Your task to perform on an android device: turn off notifications settings in the gmail app Image 0: 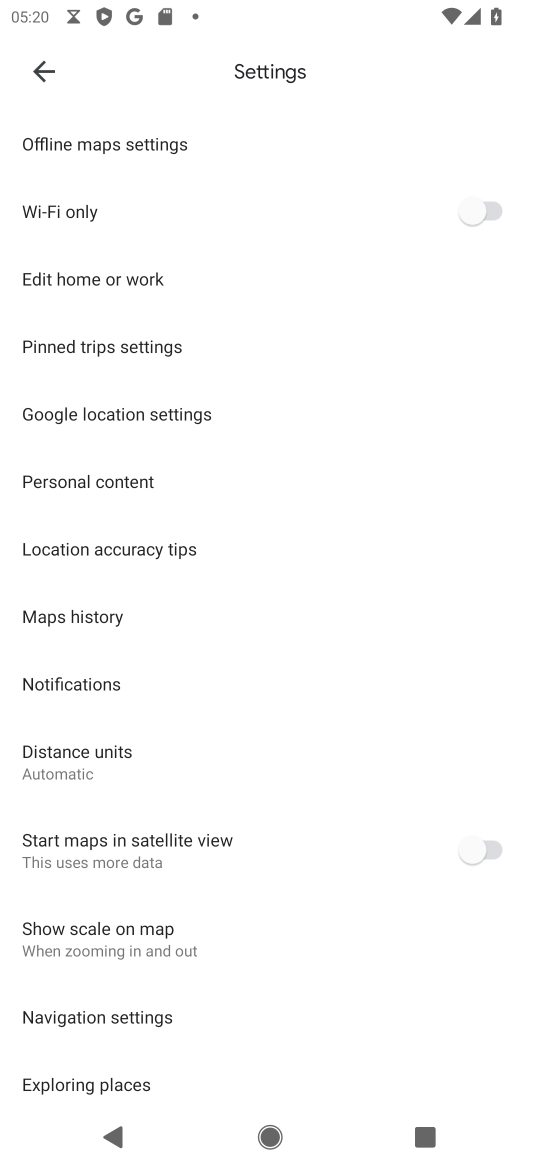
Step 0: press home button
Your task to perform on an android device: turn off notifications settings in the gmail app Image 1: 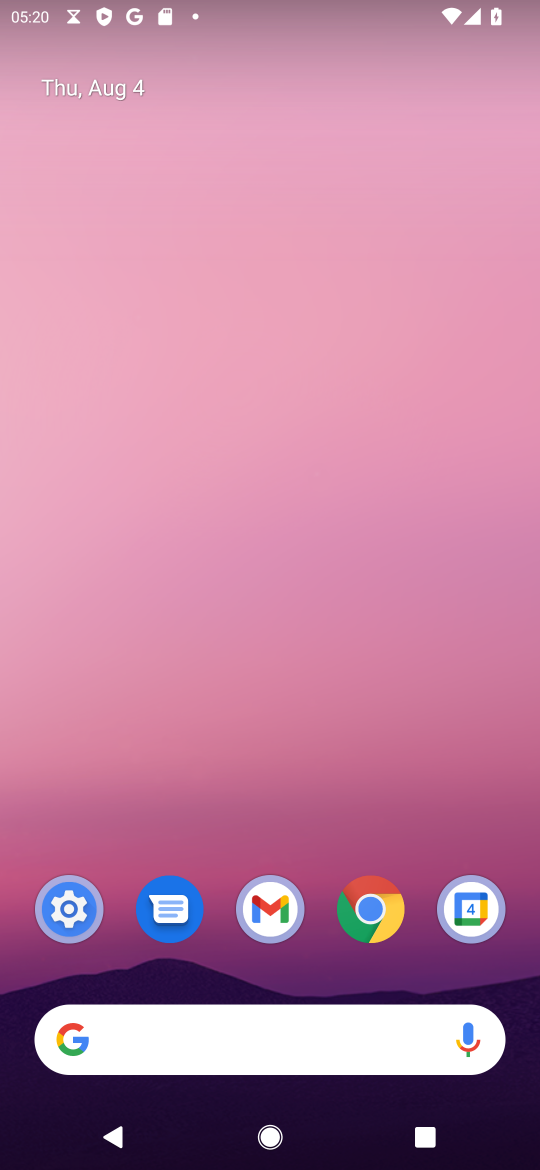
Step 1: click (272, 913)
Your task to perform on an android device: turn off notifications settings in the gmail app Image 2: 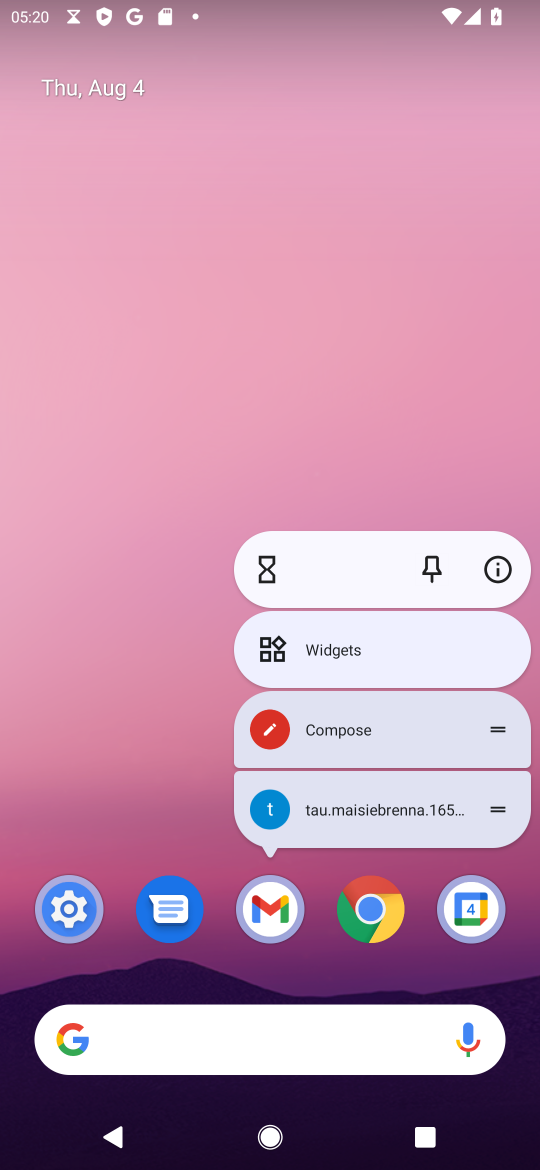
Step 2: click (264, 905)
Your task to perform on an android device: turn off notifications settings in the gmail app Image 3: 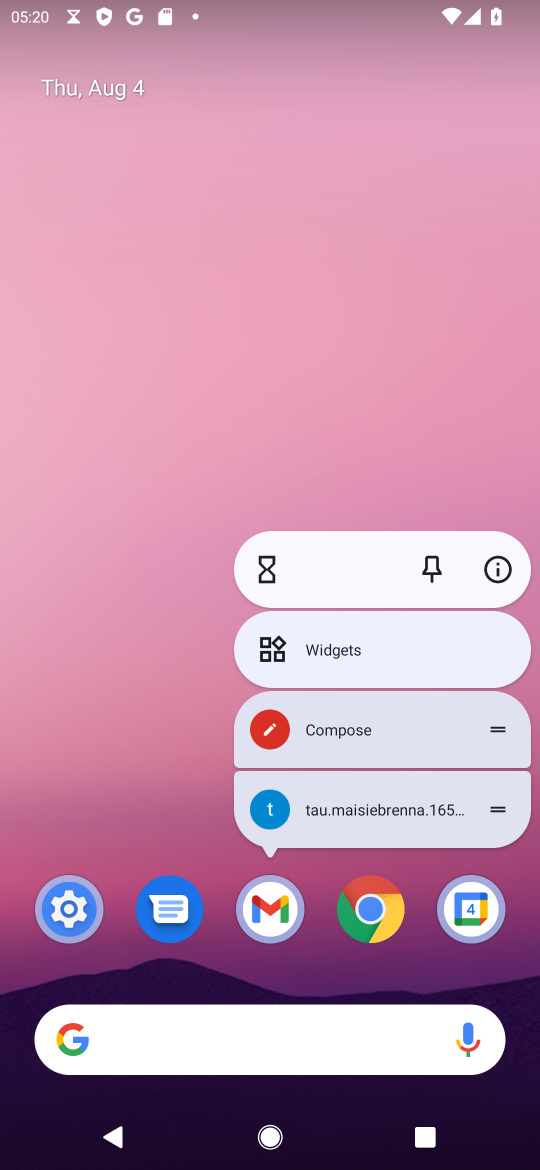
Step 3: click (272, 915)
Your task to perform on an android device: turn off notifications settings in the gmail app Image 4: 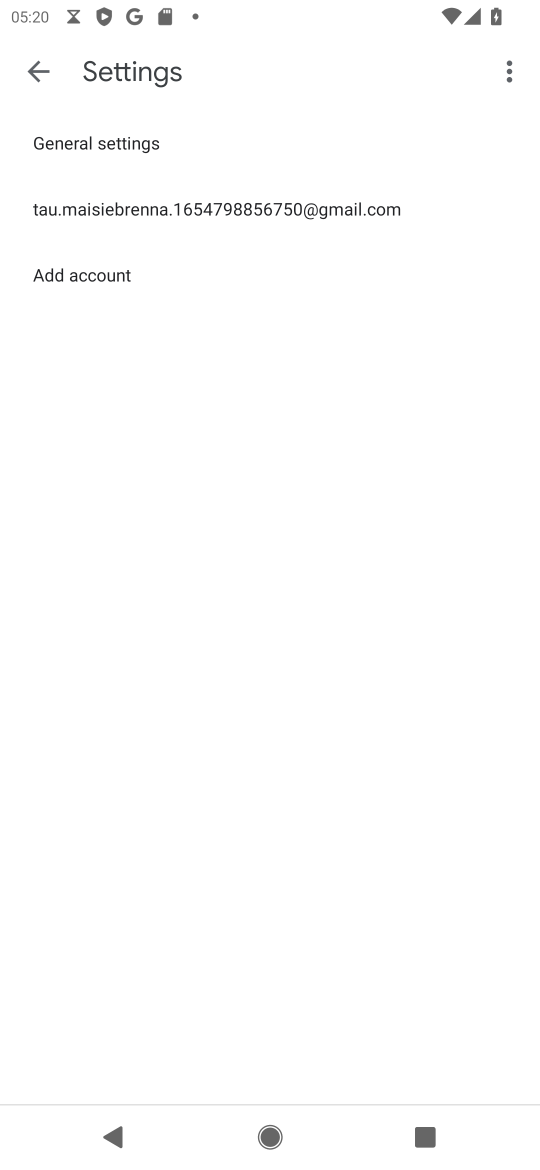
Step 4: click (292, 214)
Your task to perform on an android device: turn off notifications settings in the gmail app Image 5: 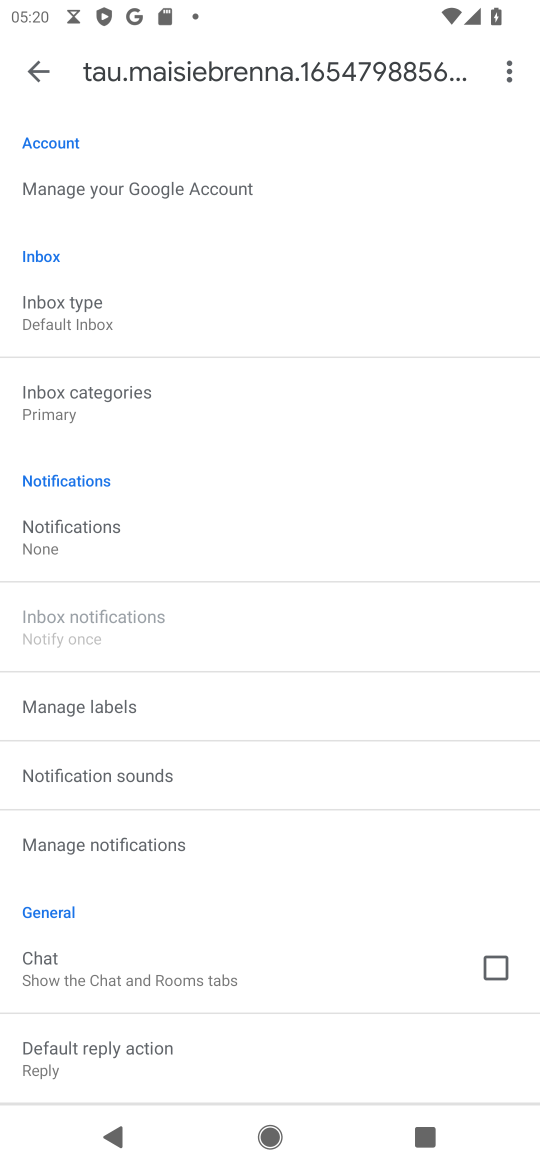
Step 5: click (84, 542)
Your task to perform on an android device: turn off notifications settings in the gmail app Image 6: 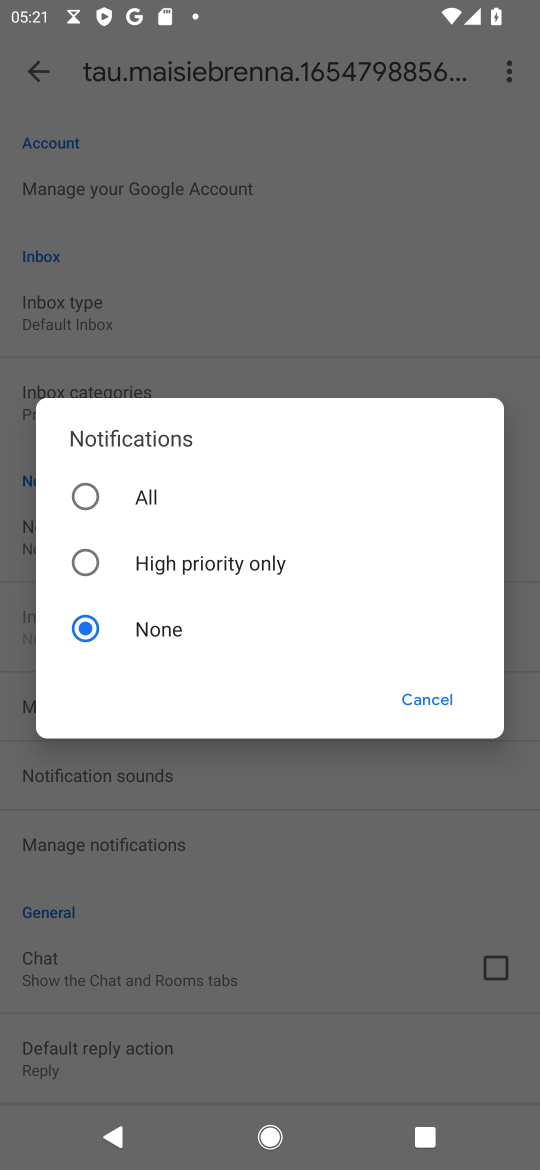
Step 6: task complete